Your task to perform on an android device: toggle translation in the chrome app Image 0: 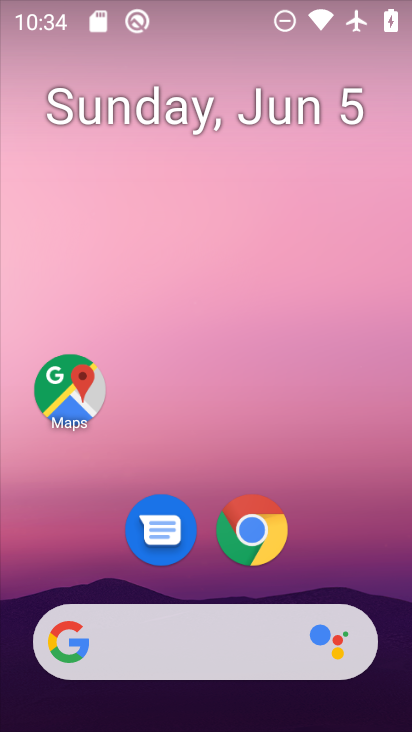
Step 0: click (255, 529)
Your task to perform on an android device: toggle translation in the chrome app Image 1: 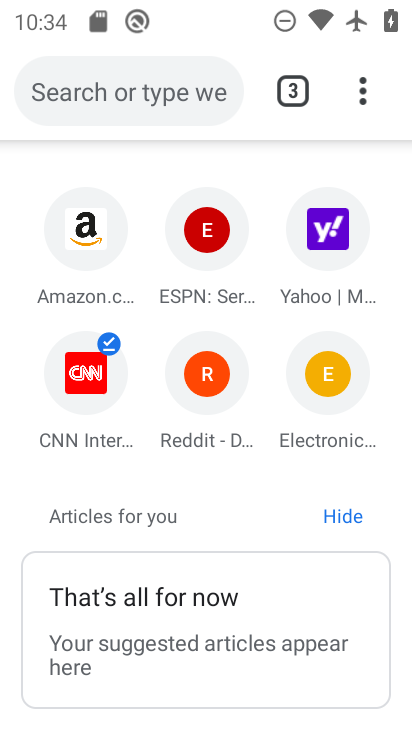
Step 1: click (361, 102)
Your task to perform on an android device: toggle translation in the chrome app Image 2: 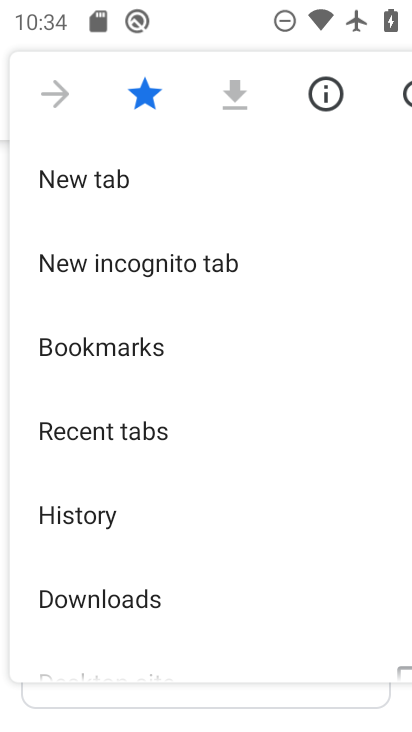
Step 2: drag from (194, 618) to (200, 311)
Your task to perform on an android device: toggle translation in the chrome app Image 3: 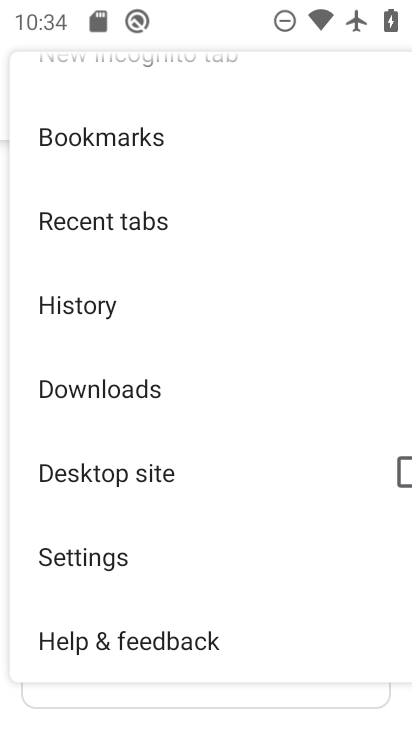
Step 3: click (114, 561)
Your task to perform on an android device: toggle translation in the chrome app Image 4: 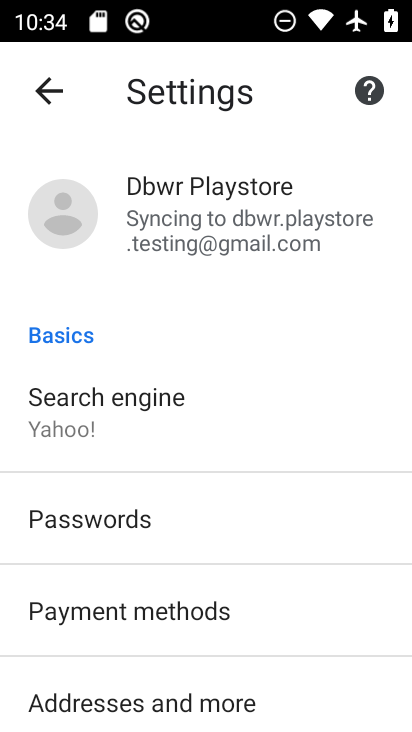
Step 4: drag from (282, 663) to (259, 284)
Your task to perform on an android device: toggle translation in the chrome app Image 5: 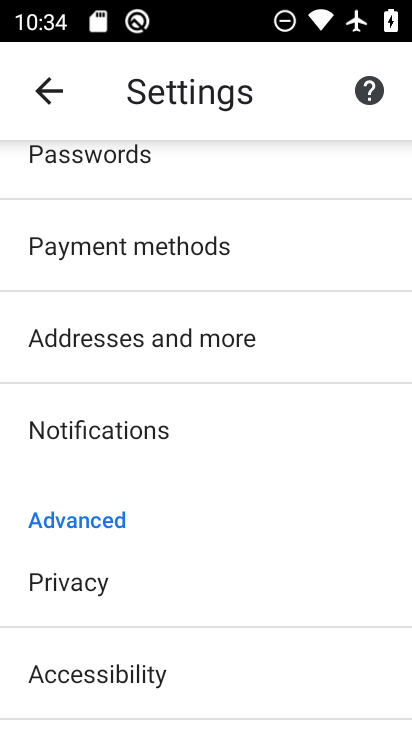
Step 5: drag from (210, 641) to (204, 471)
Your task to perform on an android device: toggle translation in the chrome app Image 6: 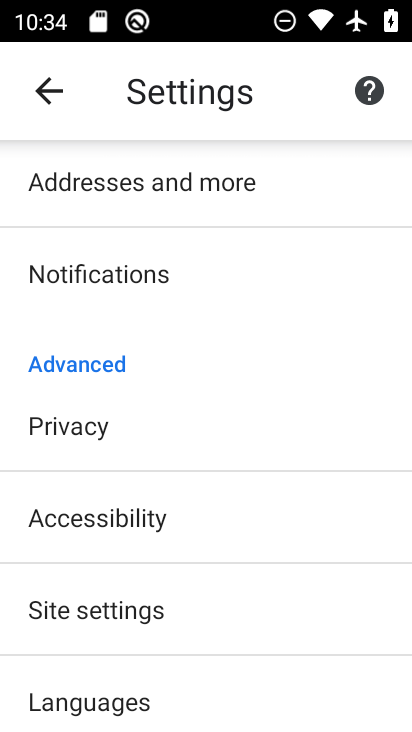
Step 6: drag from (164, 700) to (183, 342)
Your task to perform on an android device: toggle translation in the chrome app Image 7: 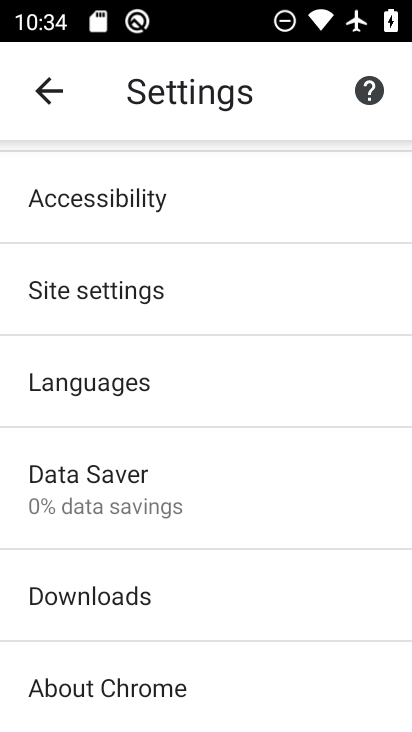
Step 7: click (81, 377)
Your task to perform on an android device: toggle translation in the chrome app Image 8: 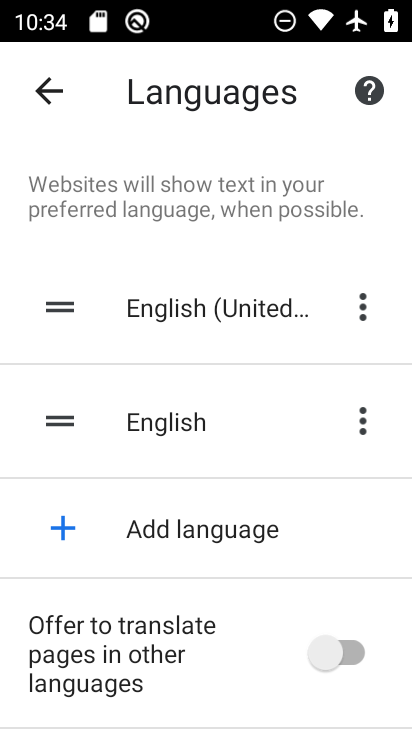
Step 8: click (353, 658)
Your task to perform on an android device: toggle translation in the chrome app Image 9: 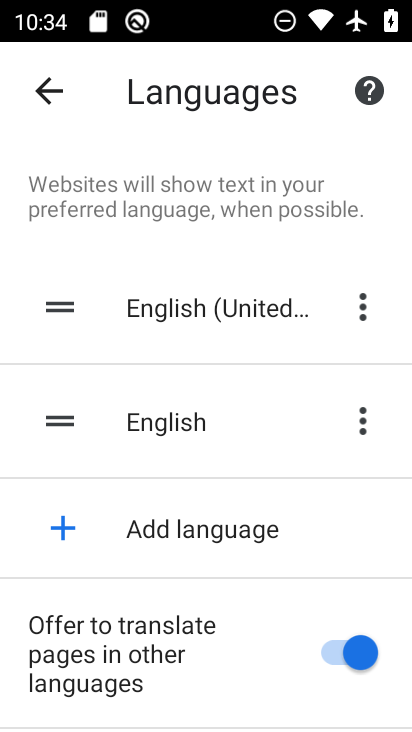
Step 9: task complete